Your task to perform on an android device: Open Google Maps and go to "Timeline" Image 0: 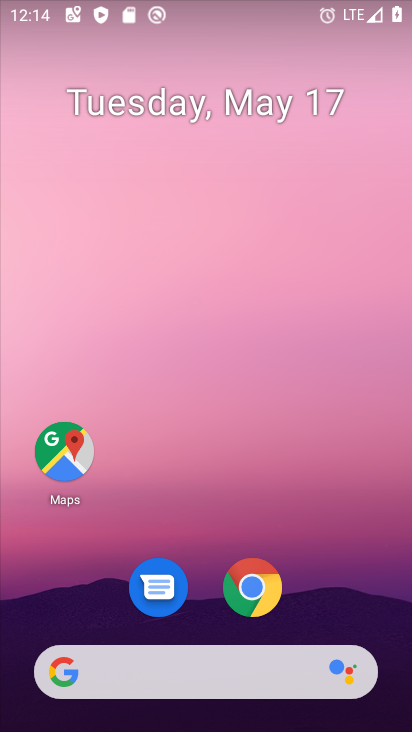
Step 0: drag from (381, 641) to (285, 63)
Your task to perform on an android device: Open Google Maps and go to "Timeline" Image 1: 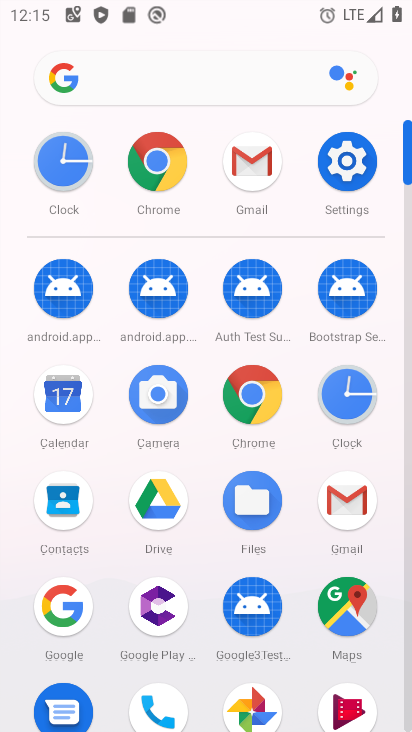
Step 1: click (356, 627)
Your task to perform on an android device: Open Google Maps and go to "Timeline" Image 2: 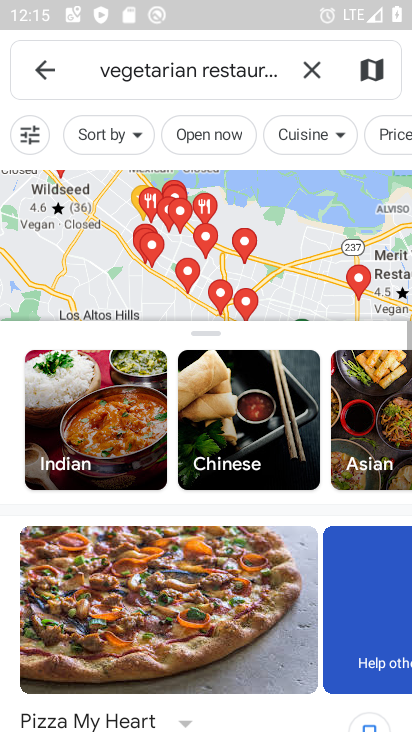
Step 2: click (307, 76)
Your task to perform on an android device: Open Google Maps and go to "Timeline" Image 3: 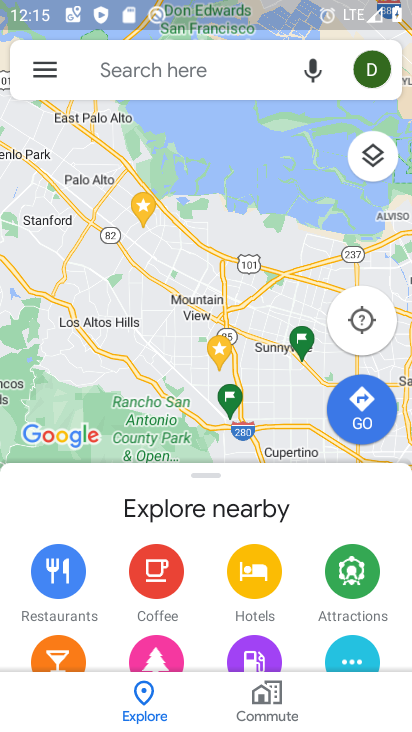
Step 3: click (43, 66)
Your task to perform on an android device: Open Google Maps and go to "Timeline" Image 4: 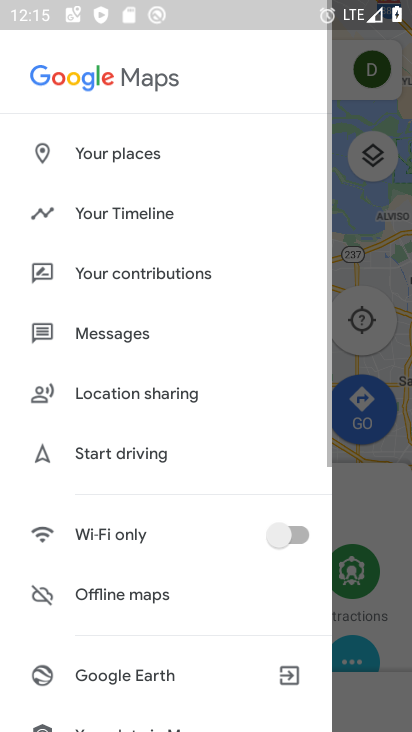
Step 4: click (155, 222)
Your task to perform on an android device: Open Google Maps and go to "Timeline" Image 5: 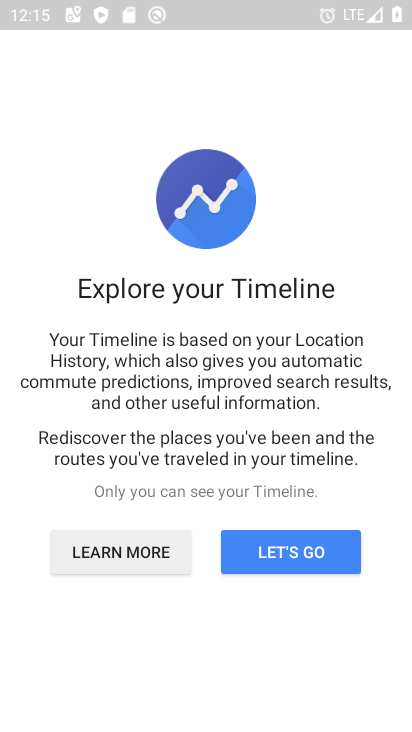
Step 5: task complete